Your task to perform on an android device: Go to wifi settings Image 0: 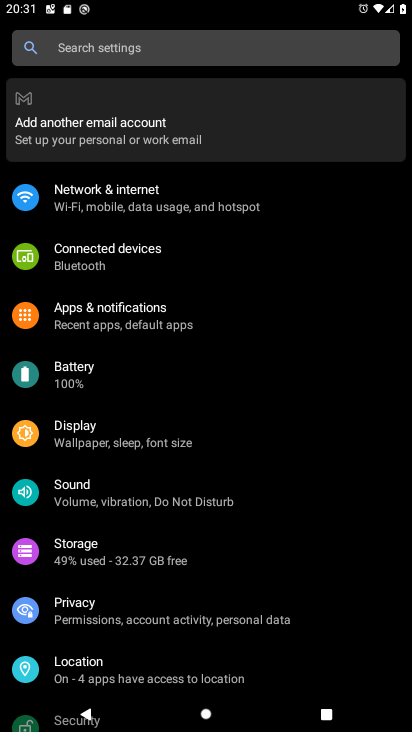
Step 0: click (91, 202)
Your task to perform on an android device: Go to wifi settings Image 1: 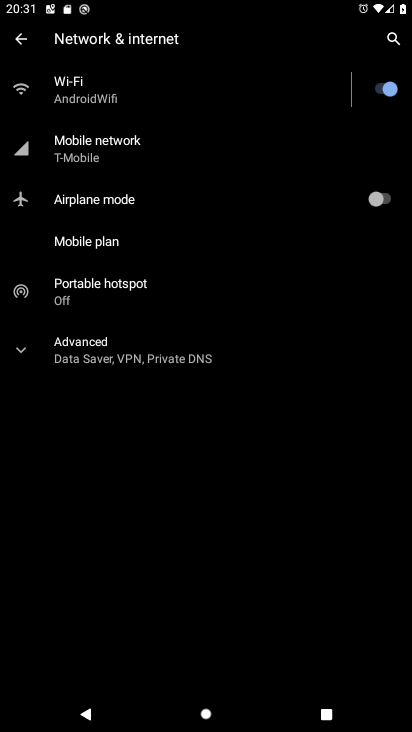
Step 1: click (114, 116)
Your task to perform on an android device: Go to wifi settings Image 2: 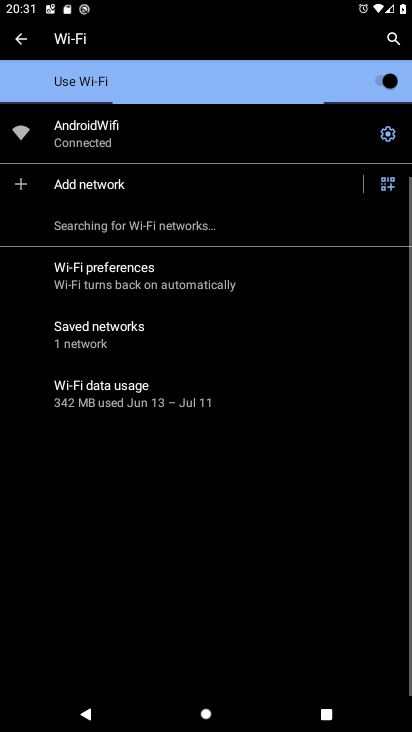
Step 2: task complete